Your task to perform on an android device: install app "Google Docs" Image 0: 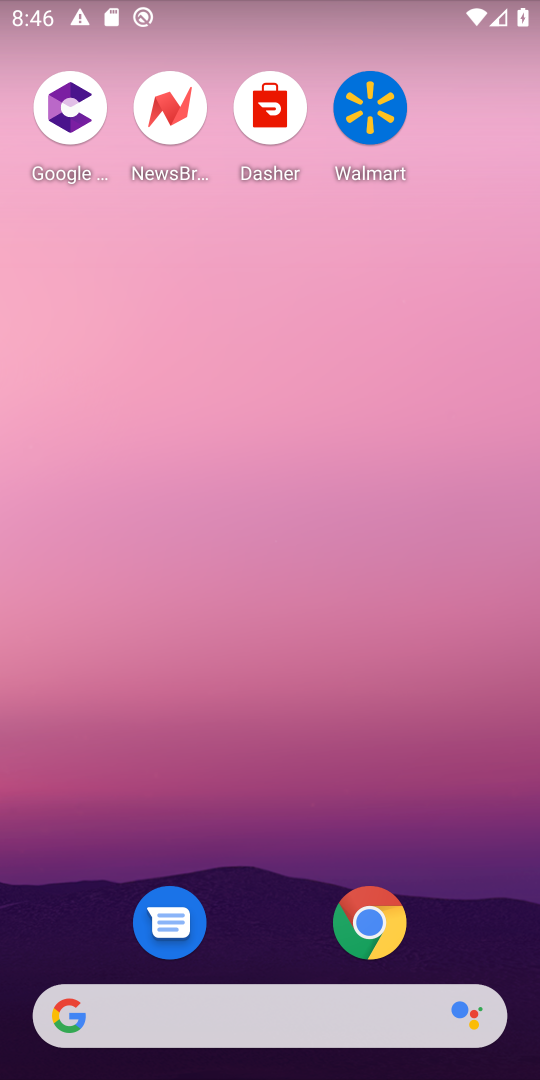
Step 0: drag from (287, 922) to (278, 52)
Your task to perform on an android device: install app "Google Docs" Image 1: 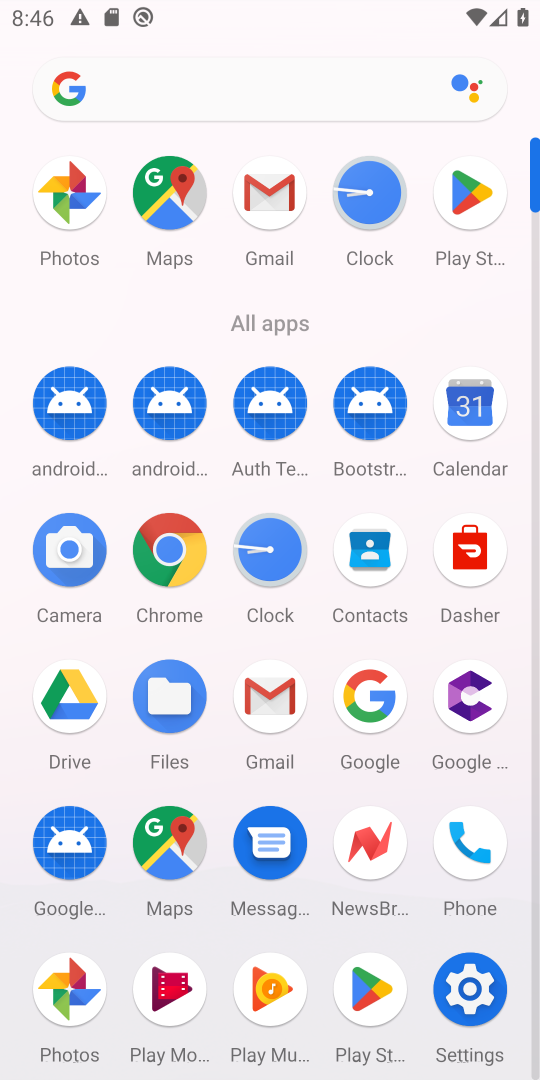
Step 1: click (362, 984)
Your task to perform on an android device: install app "Google Docs" Image 2: 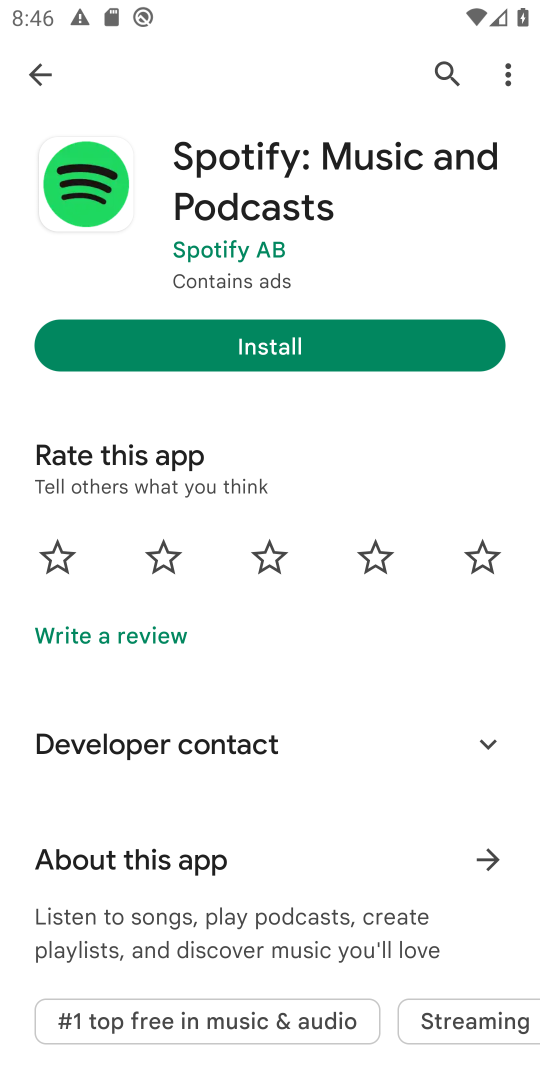
Step 2: click (445, 74)
Your task to perform on an android device: install app "Google Docs" Image 3: 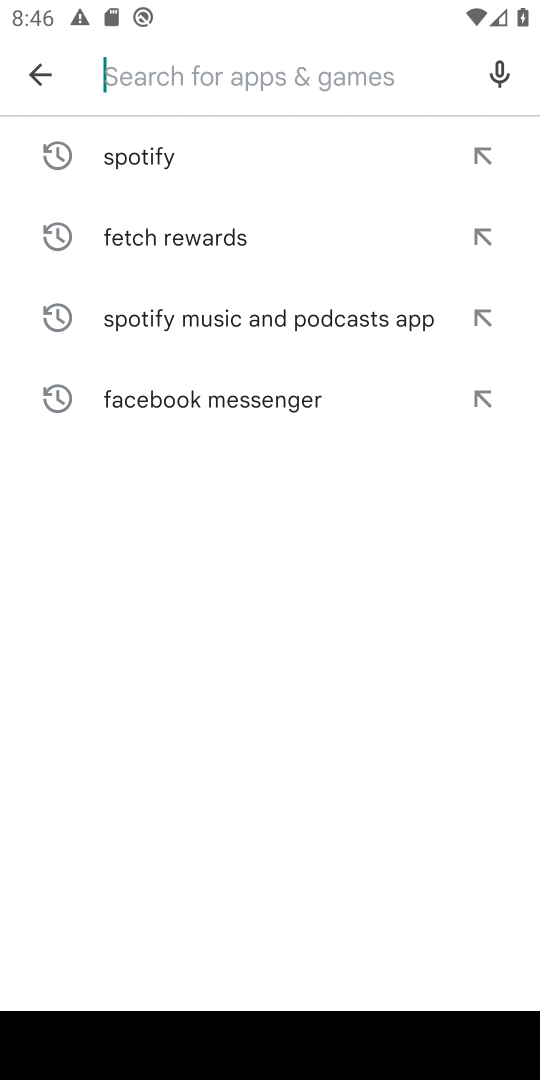
Step 3: type "Google Docs"
Your task to perform on an android device: install app "Google Docs" Image 4: 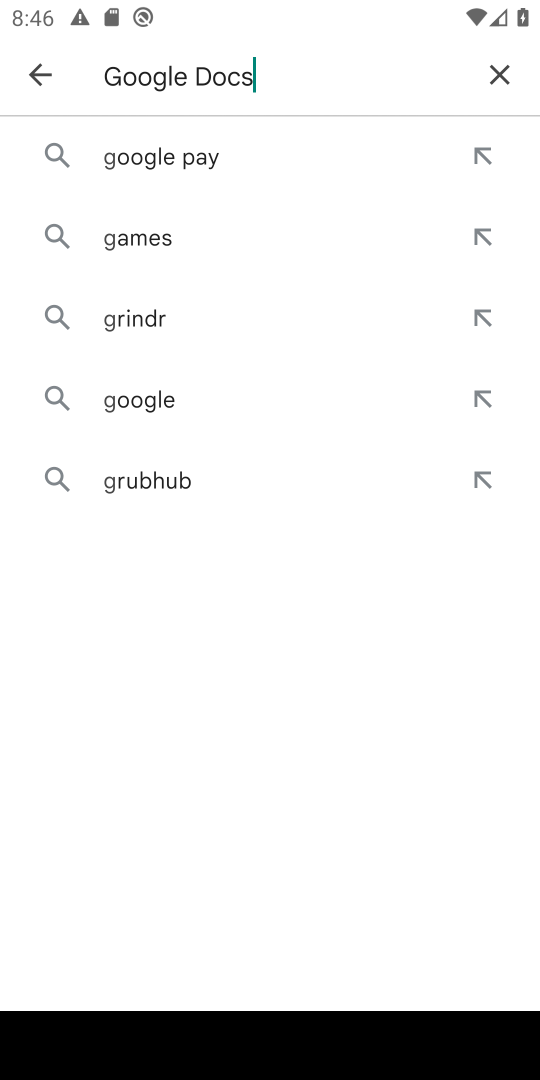
Step 4: type ""
Your task to perform on an android device: install app "Google Docs" Image 5: 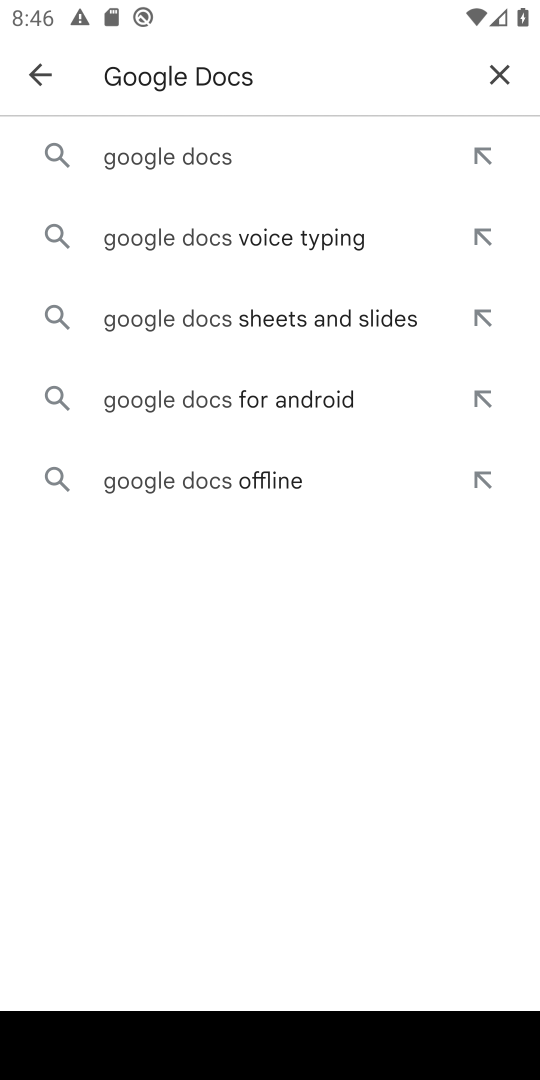
Step 5: click (189, 150)
Your task to perform on an android device: install app "Google Docs" Image 6: 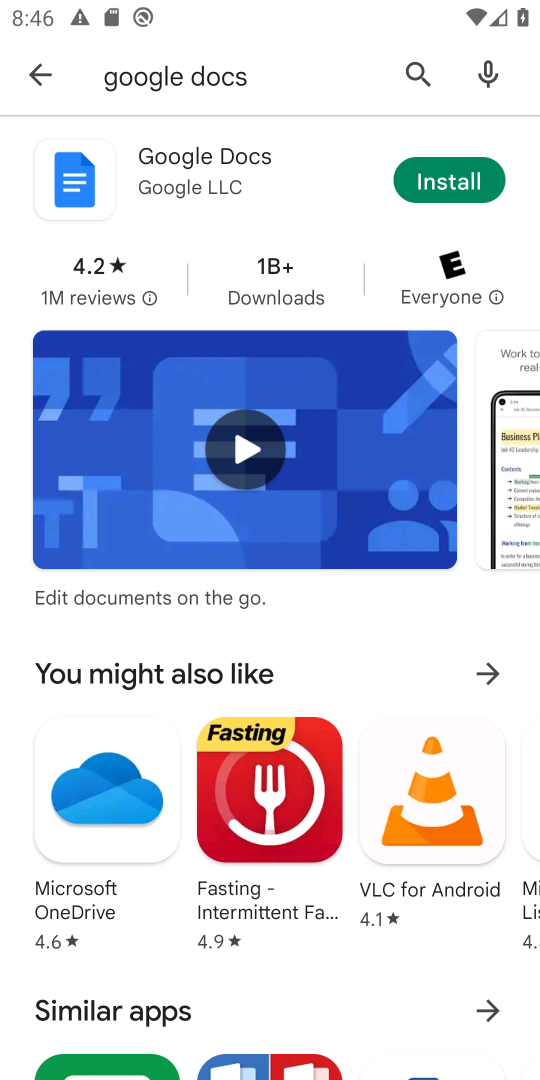
Step 6: click (458, 178)
Your task to perform on an android device: install app "Google Docs" Image 7: 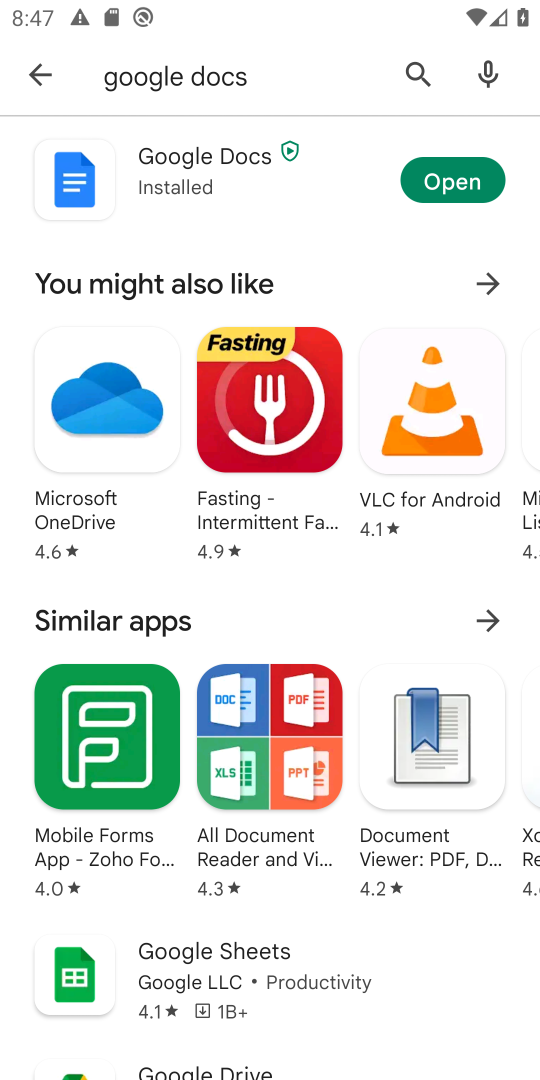
Step 7: task complete